Your task to perform on an android device: manage bookmarks in the chrome app Image 0: 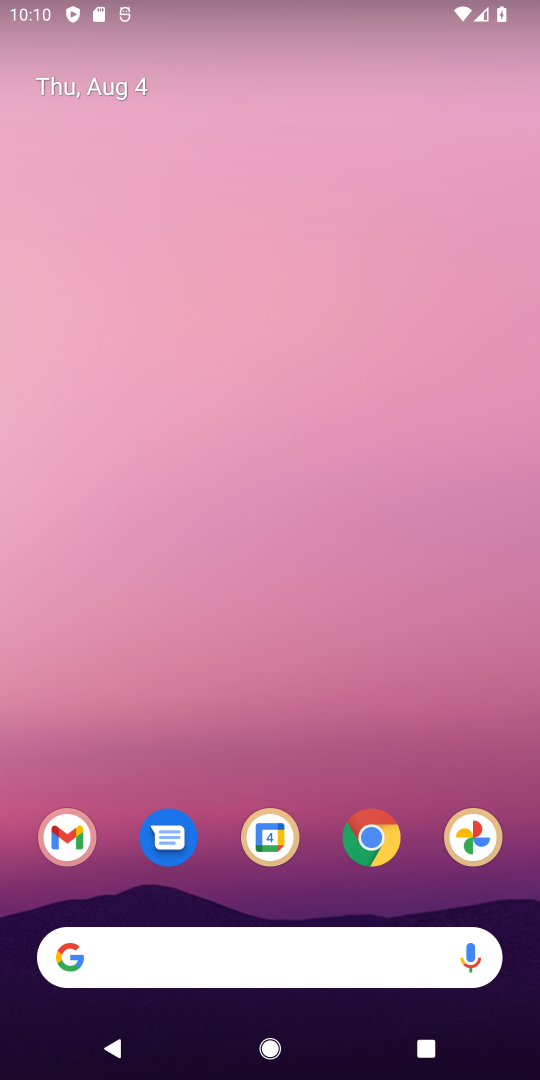
Step 0: drag from (439, 794) to (171, 16)
Your task to perform on an android device: manage bookmarks in the chrome app Image 1: 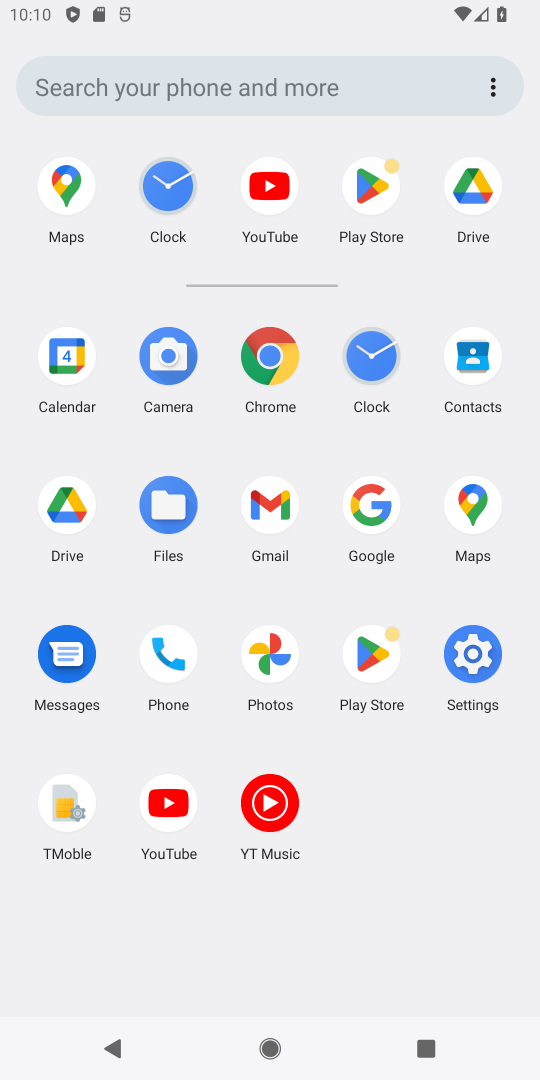
Step 1: click (276, 324)
Your task to perform on an android device: manage bookmarks in the chrome app Image 2: 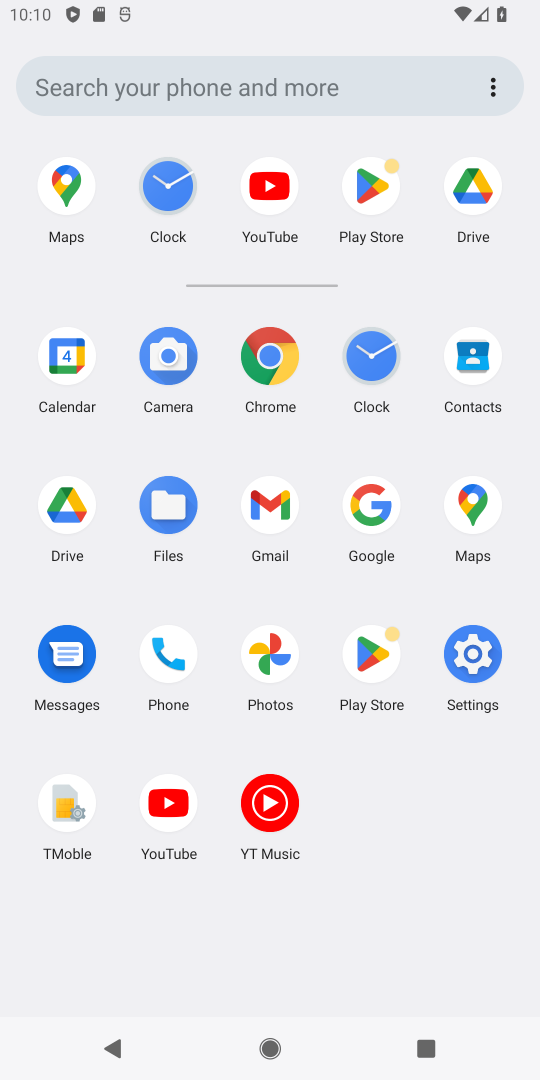
Step 2: click (259, 353)
Your task to perform on an android device: manage bookmarks in the chrome app Image 3: 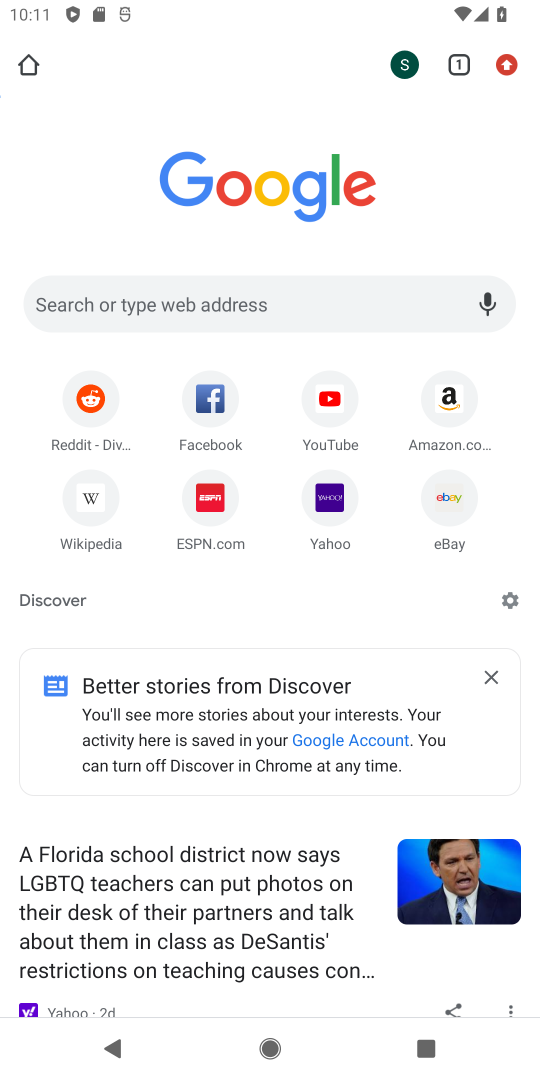
Step 3: task complete